Your task to perform on an android device: turn off location Image 0: 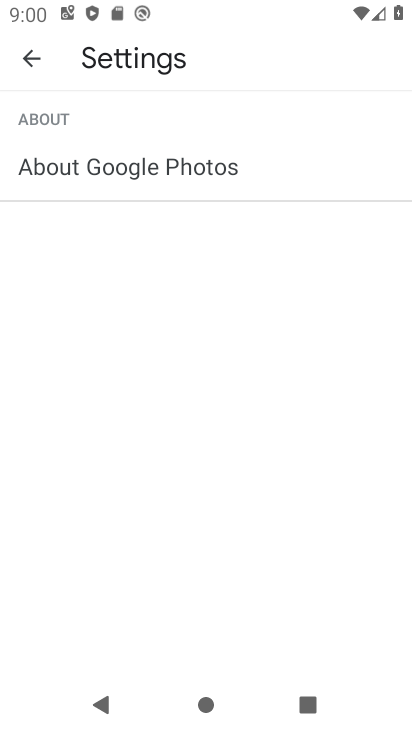
Step 0: press home button
Your task to perform on an android device: turn off location Image 1: 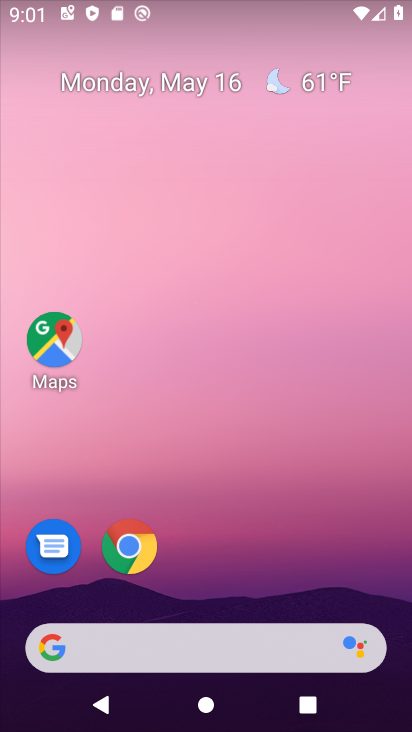
Step 1: drag from (352, 594) to (272, 211)
Your task to perform on an android device: turn off location Image 2: 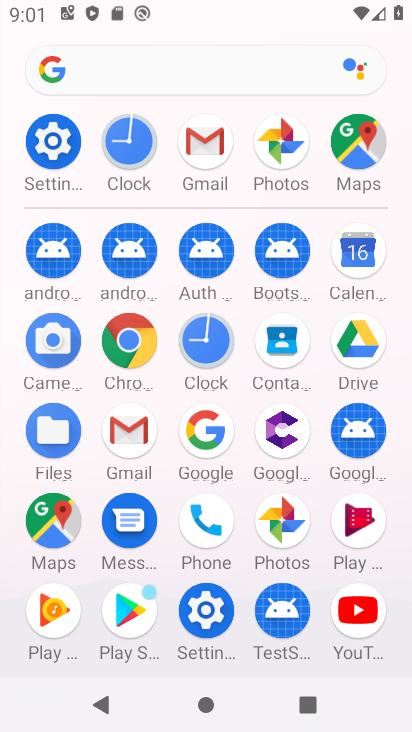
Step 2: click (64, 155)
Your task to perform on an android device: turn off location Image 3: 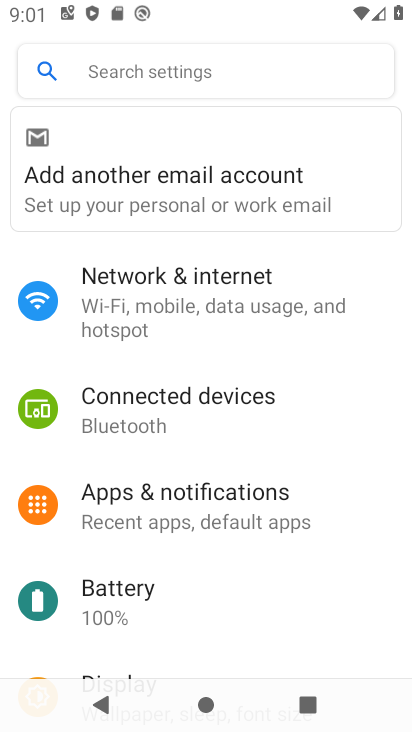
Step 3: drag from (301, 252) to (249, 13)
Your task to perform on an android device: turn off location Image 4: 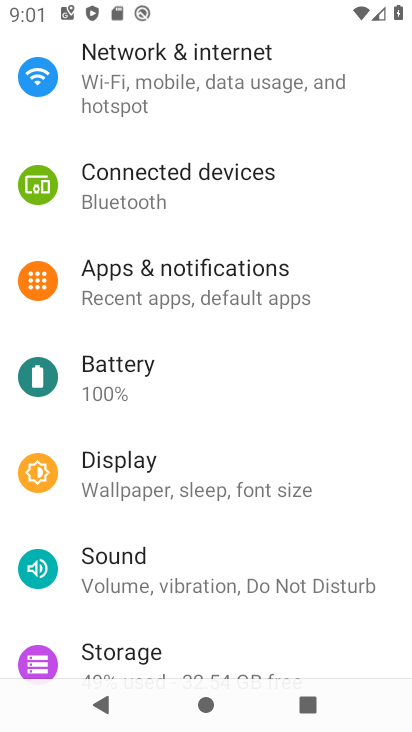
Step 4: drag from (269, 510) to (199, 244)
Your task to perform on an android device: turn off location Image 5: 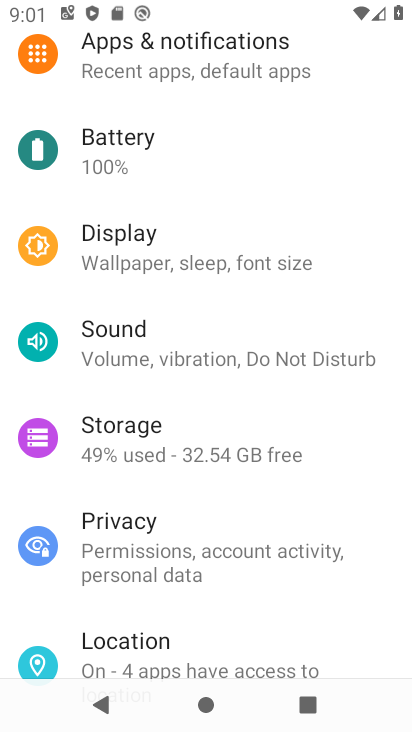
Step 5: click (157, 667)
Your task to perform on an android device: turn off location Image 6: 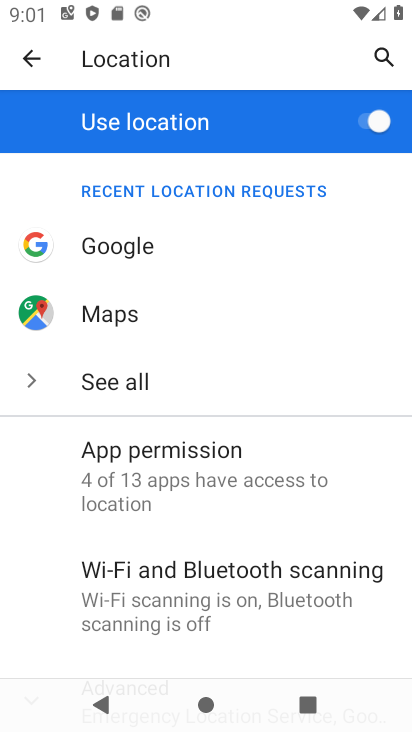
Step 6: click (375, 124)
Your task to perform on an android device: turn off location Image 7: 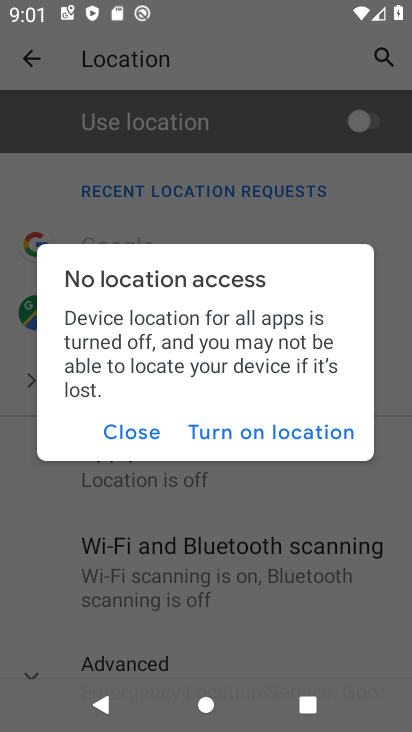
Step 7: click (155, 432)
Your task to perform on an android device: turn off location Image 8: 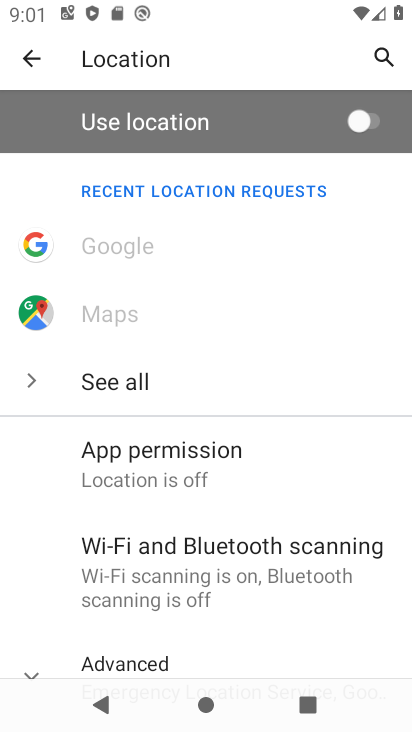
Step 8: task complete